Your task to perform on an android device: set the stopwatch Image 0: 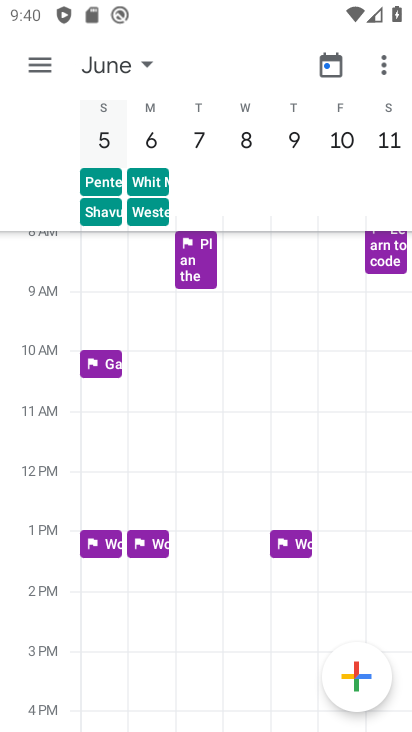
Step 0: press home button
Your task to perform on an android device: set the stopwatch Image 1: 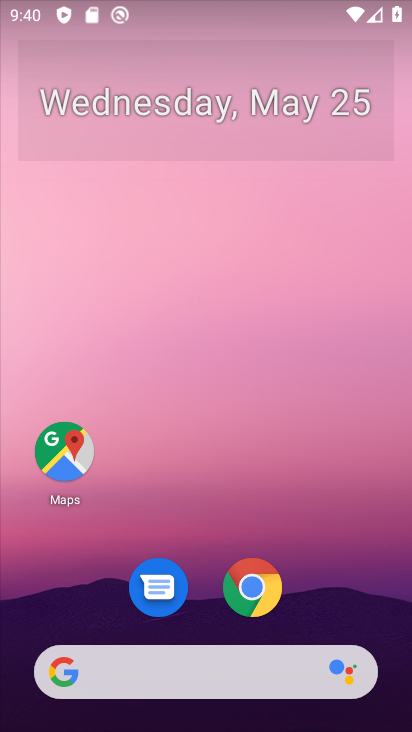
Step 1: drag from (215, 619) to (224, 153)
Your task to perform on an android device: set the stopwatch Image 2: 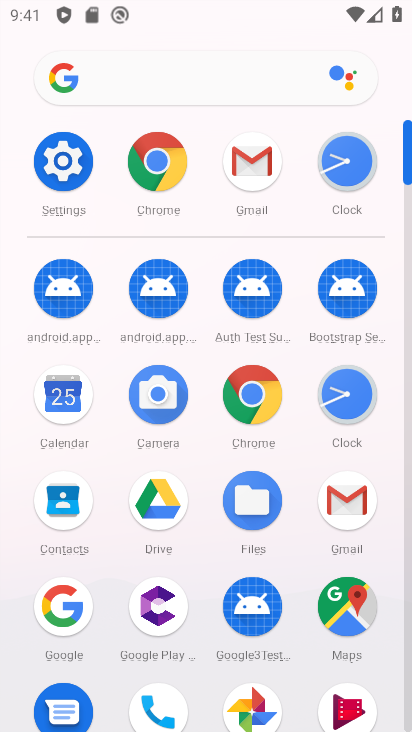
Step 2: click (350, 396)
Your task to perform on an android device: set the stopwatch Image 3: 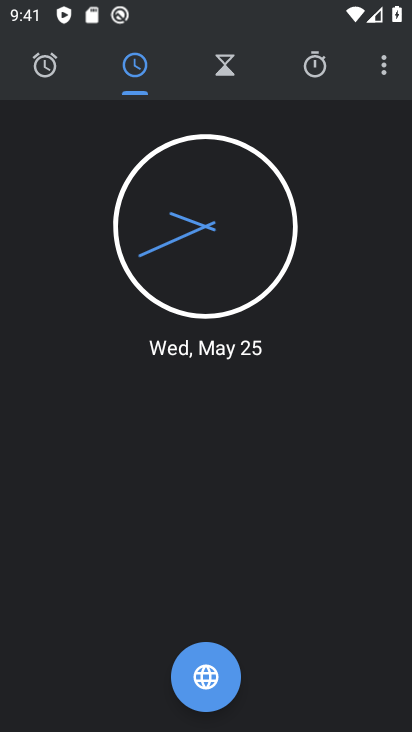
Step 3: click (319, 79)
Your task to perform on an android device: set the stopwatch Image 4: 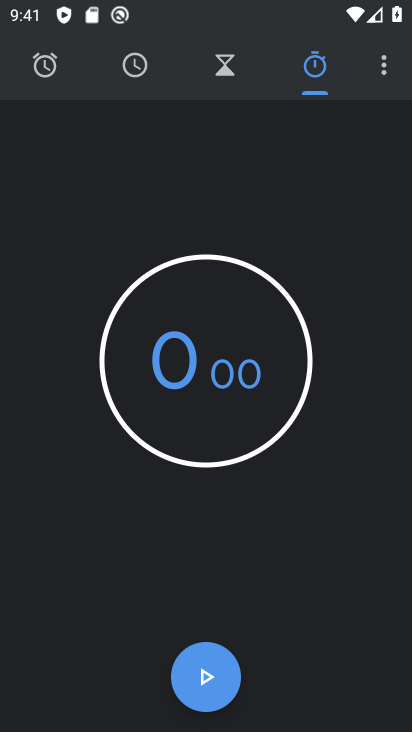
Step 4: click (213, 688)
Your task to perform on an android device: set the stopwatch Image 5: 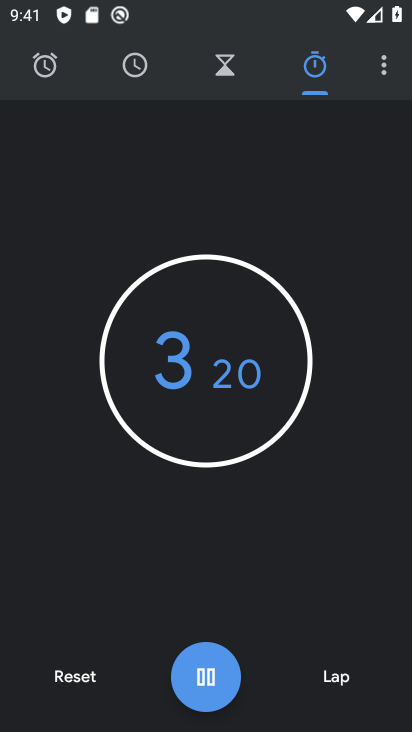
Step 5: task complete